Your task to perform on an android device: Clear the shopping cart on newegg. Search for "logitech g pro" on newegg, select the first entry, and add it to the cart. Image 0: 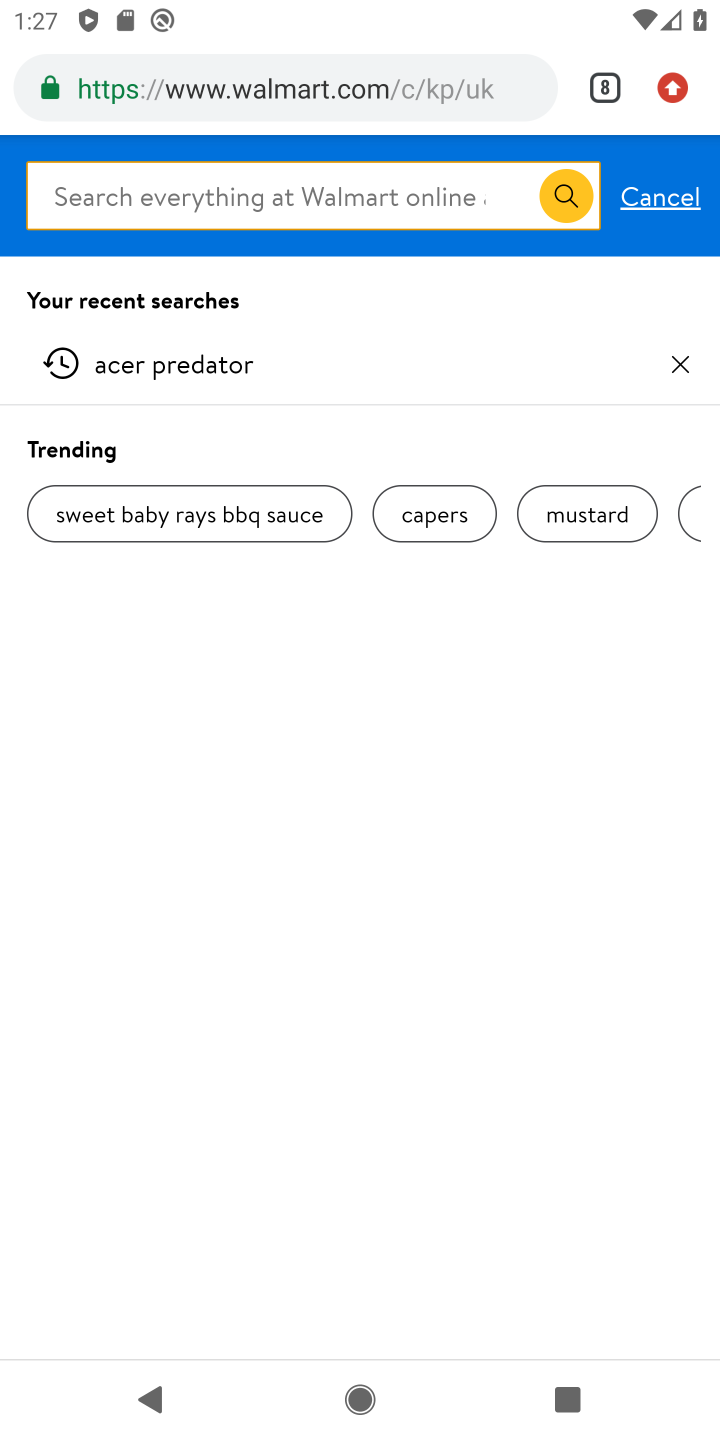
Step 0: press home button
Your task to perform on an android device: Clear the shopping cart on newegg. Search for "logitech g pro" on newegg, select the first entry, and add it to the cart. Image 1: 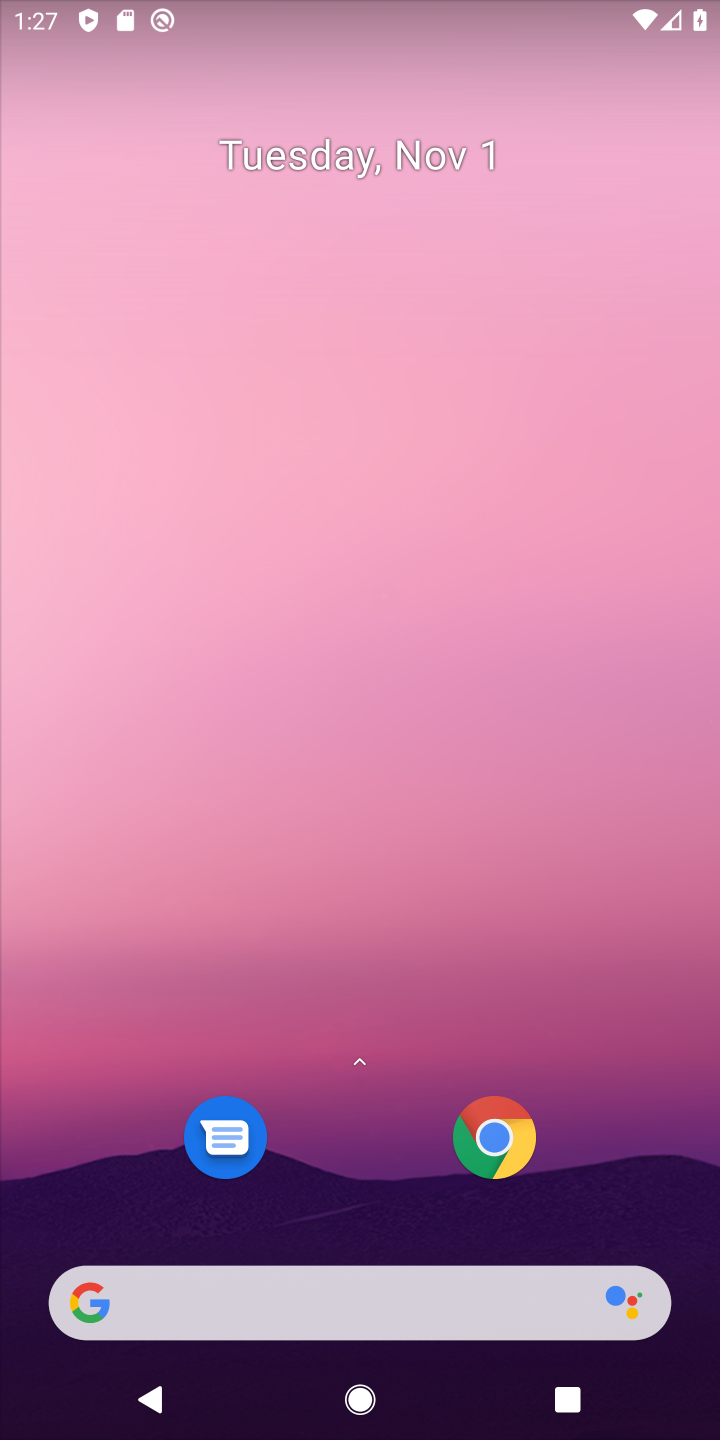
Step 1: click (340, 1281)
Your task to perform on an android device: Clear the shopping cart on newegg. Search for "logitech g pro" on newegg, select the first entry, and add it to the cart. Image 2: 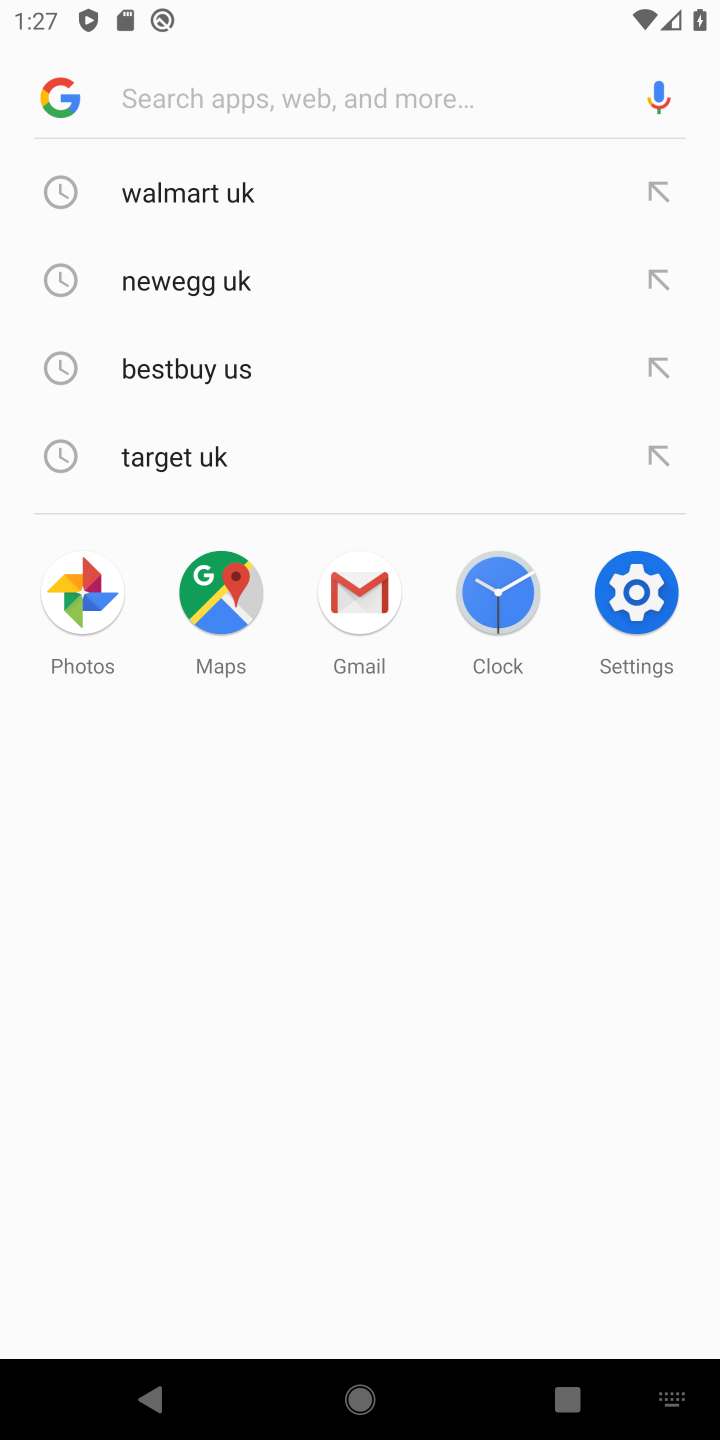
Step 2: type "newegg"
Your task to perform on an android device: Clear the shopping cart on newegg. Search for "logitech g pro" on newegg, select the first entry, and add it to the cart. Image 3: 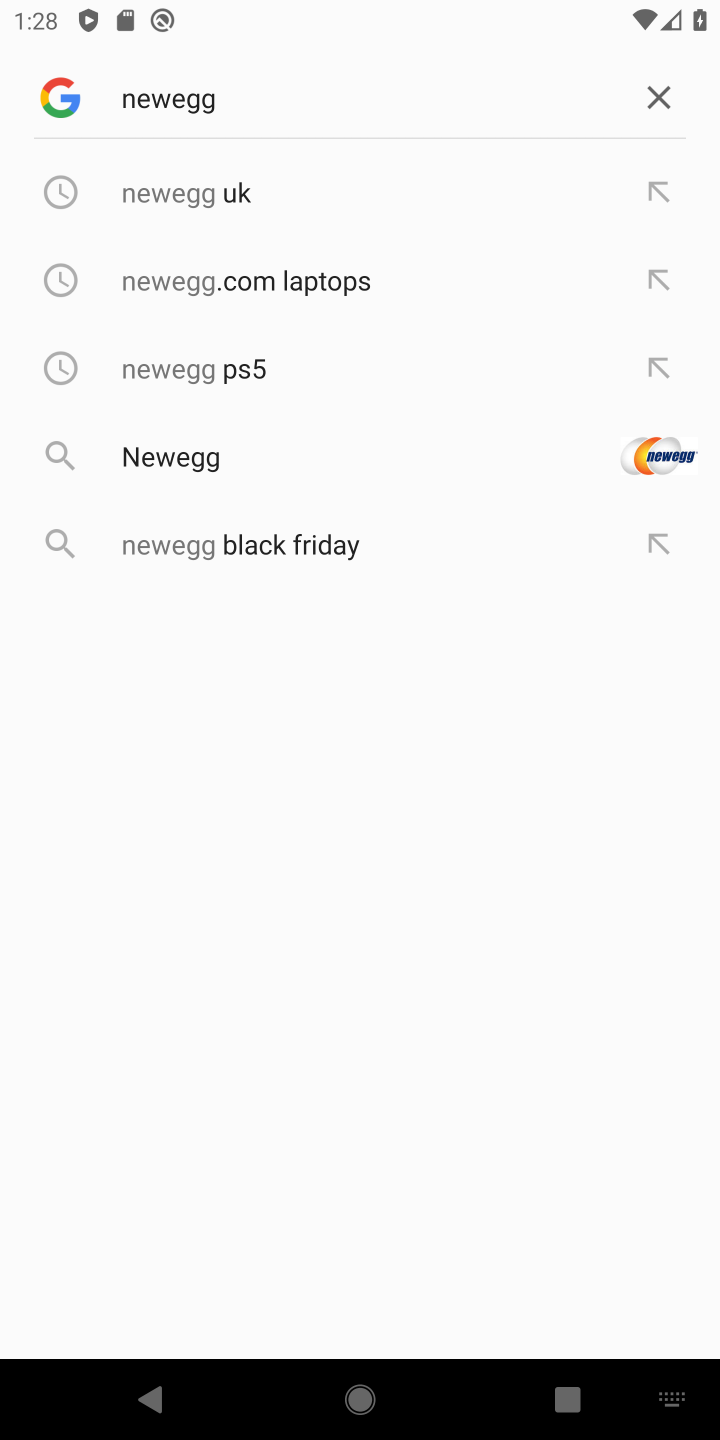
Step 3: click (165, 172)
Your task to perform on an android device: Clear the shopping cart on newegg. Search for "logitech g pro" on newegg, select the first entry, and add it to the cart. Image 4: 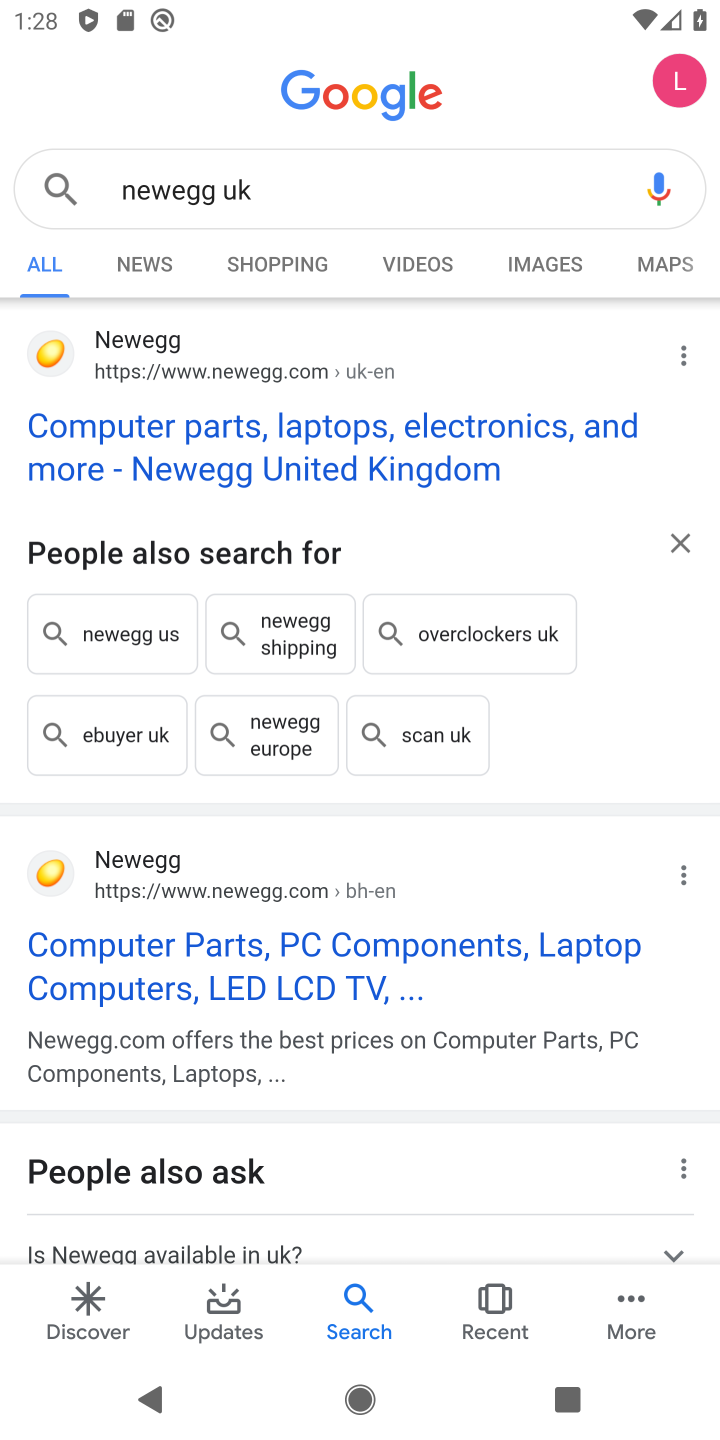
Step 4: click (341, 424)
Your task to perform on an android device: Clear the shopping cart on newegg. Search for "logitech g pro" on newegg, select the first entry, and add it to the cart. Image 5: 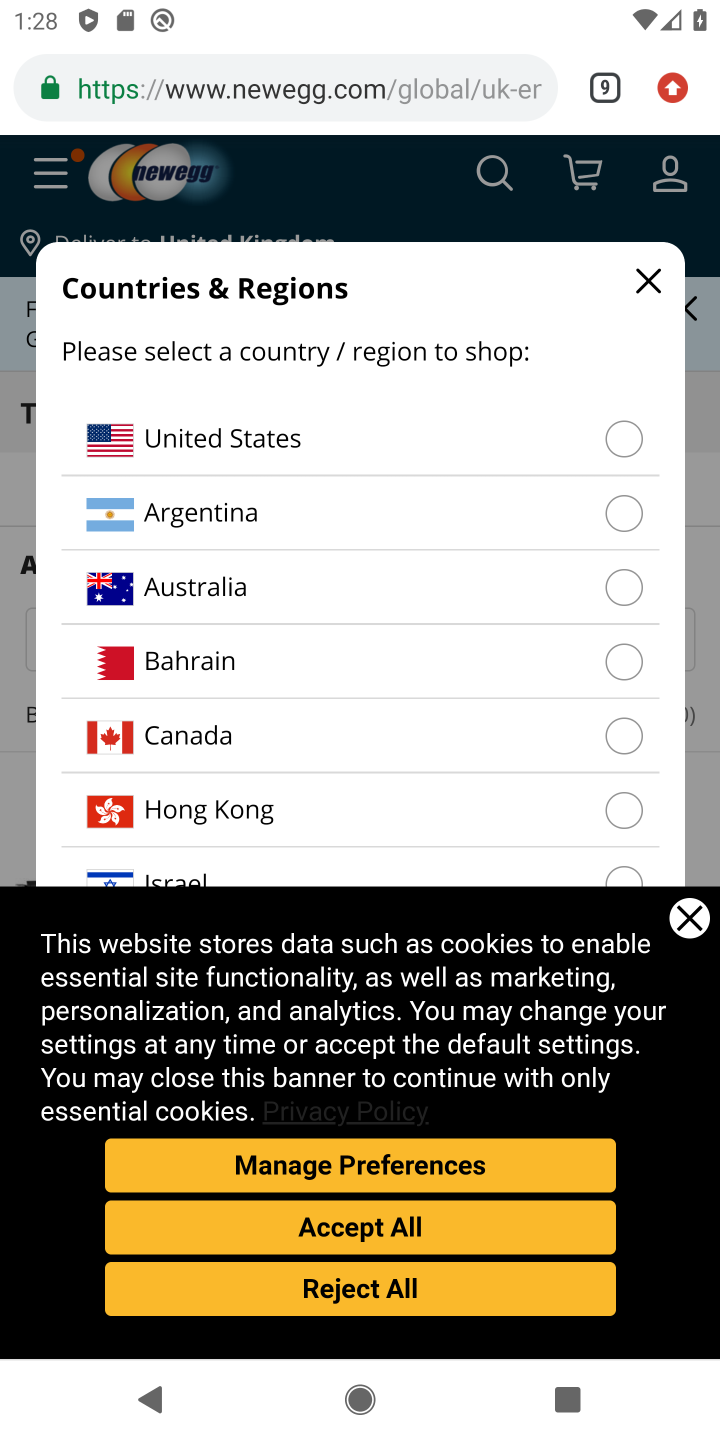
Step 5: click (310, 422)
Your task to perform on an android device: Clear the shopping cart on newegg. Search for "logitech g pro" on newegg, select the first entry, and add it to the cart. Image 6: 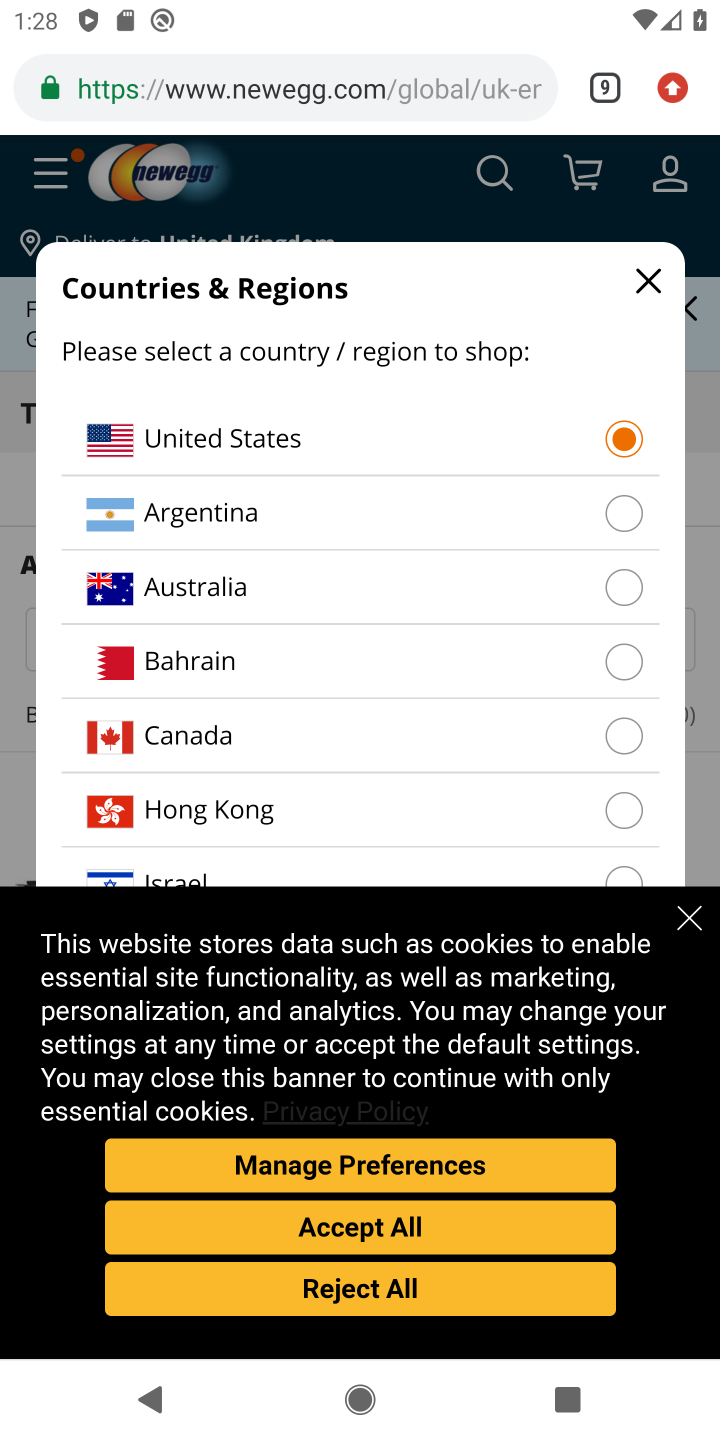
Step 6: click (697, 925)
Your task to perform on an android device: Clear the shopping cart on newegg. Search for "logitech g pro" on newegg, select the first entry, and add it to the cart. Image 7: 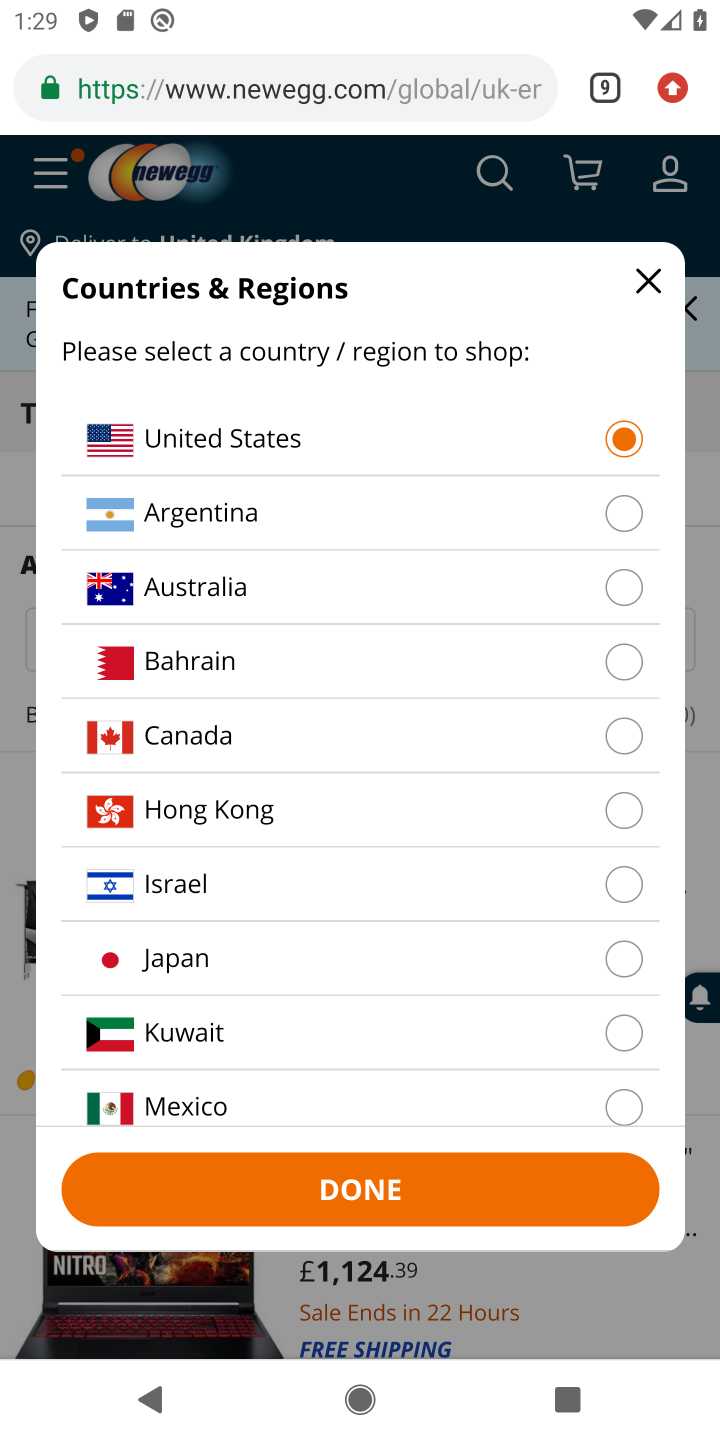
Step 7: click (452, 1177)
Your task to perform on an android device: Clear the shopping cart on newegg. Search for "logitech g pro" on newegg, select the first entry, and add it to the cart. Image 8: 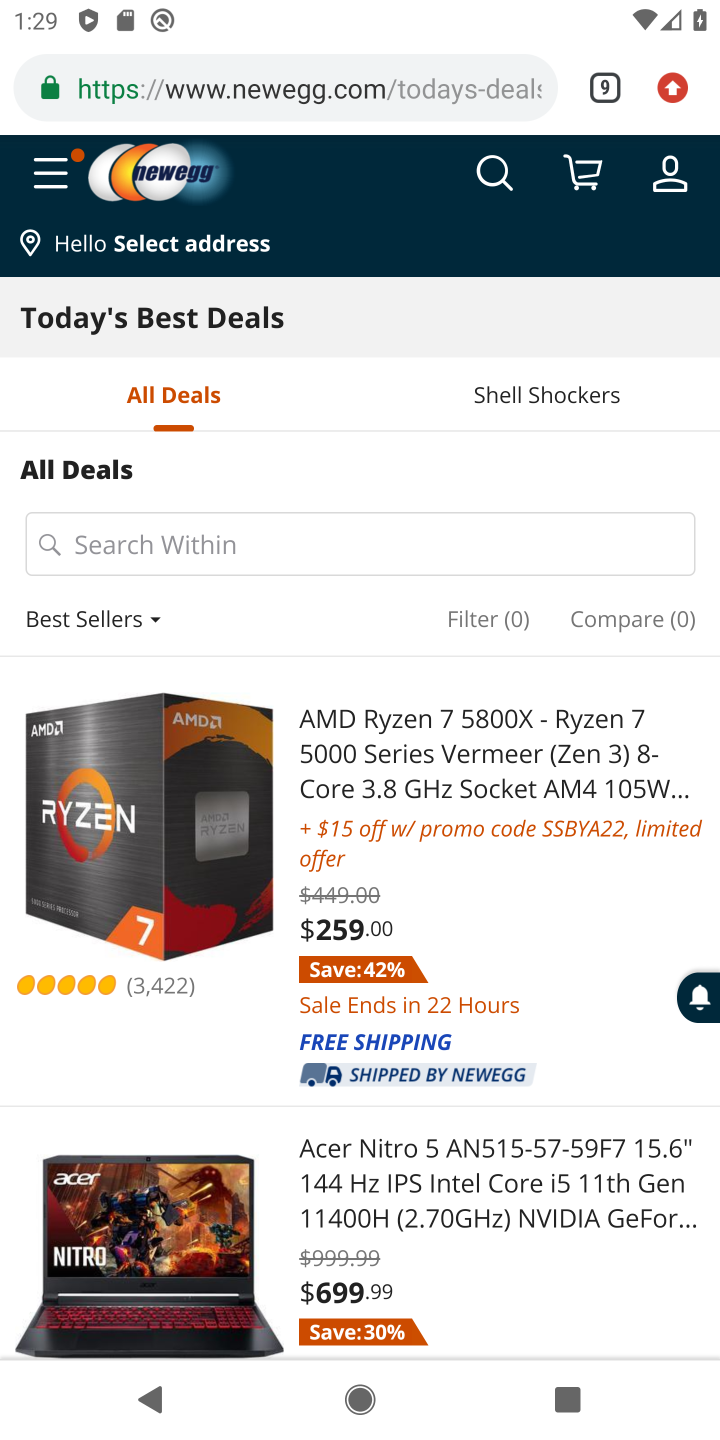
Step 8: click (372, 557)
Your task to perform on an android device: Clear the shopping cart on newegg. Search for "logitech g pro" on newegg, select the first entry, and add it to the cart. Image 9: 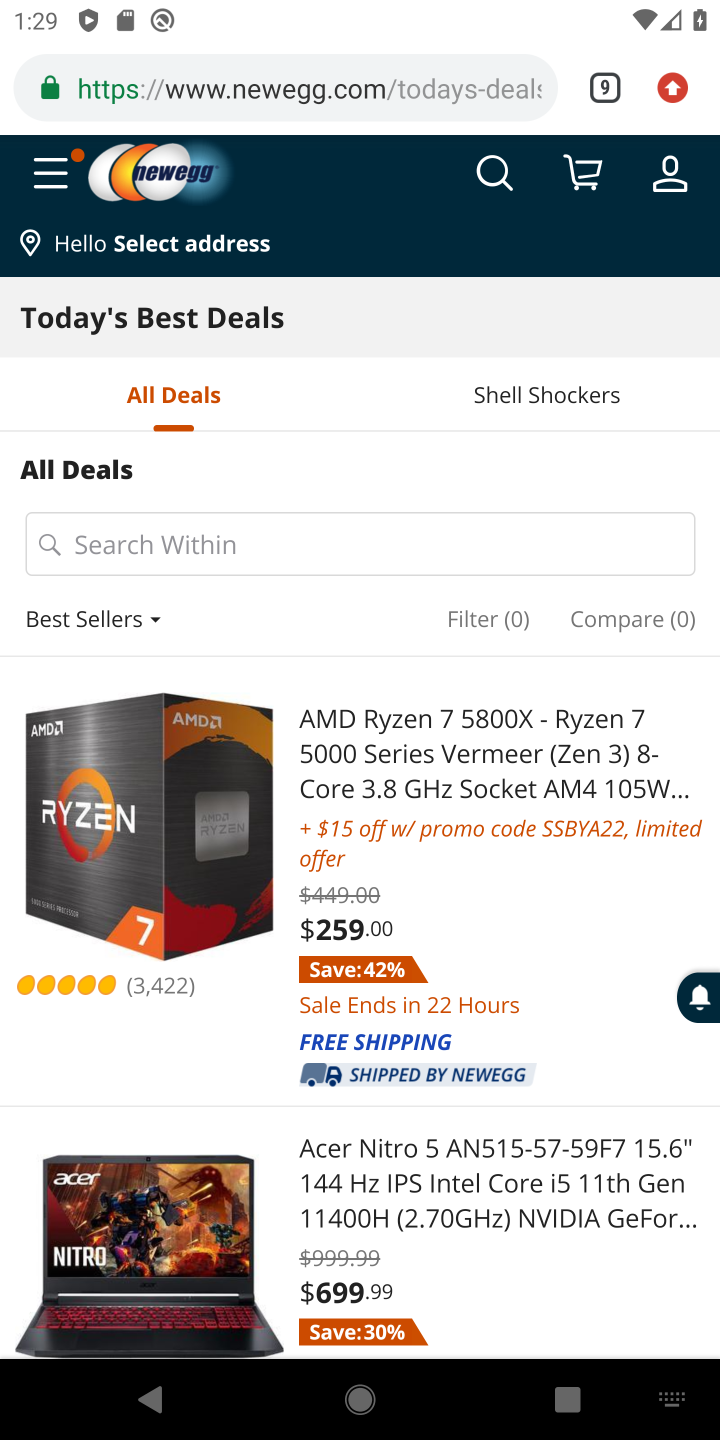
Step 9: type "logitech"
Your task to perform on an android device: Clear the shopping cart on newegg. Search for "logitech g pro" on newegg, select the first entry, and add it to the cart. Image 10: 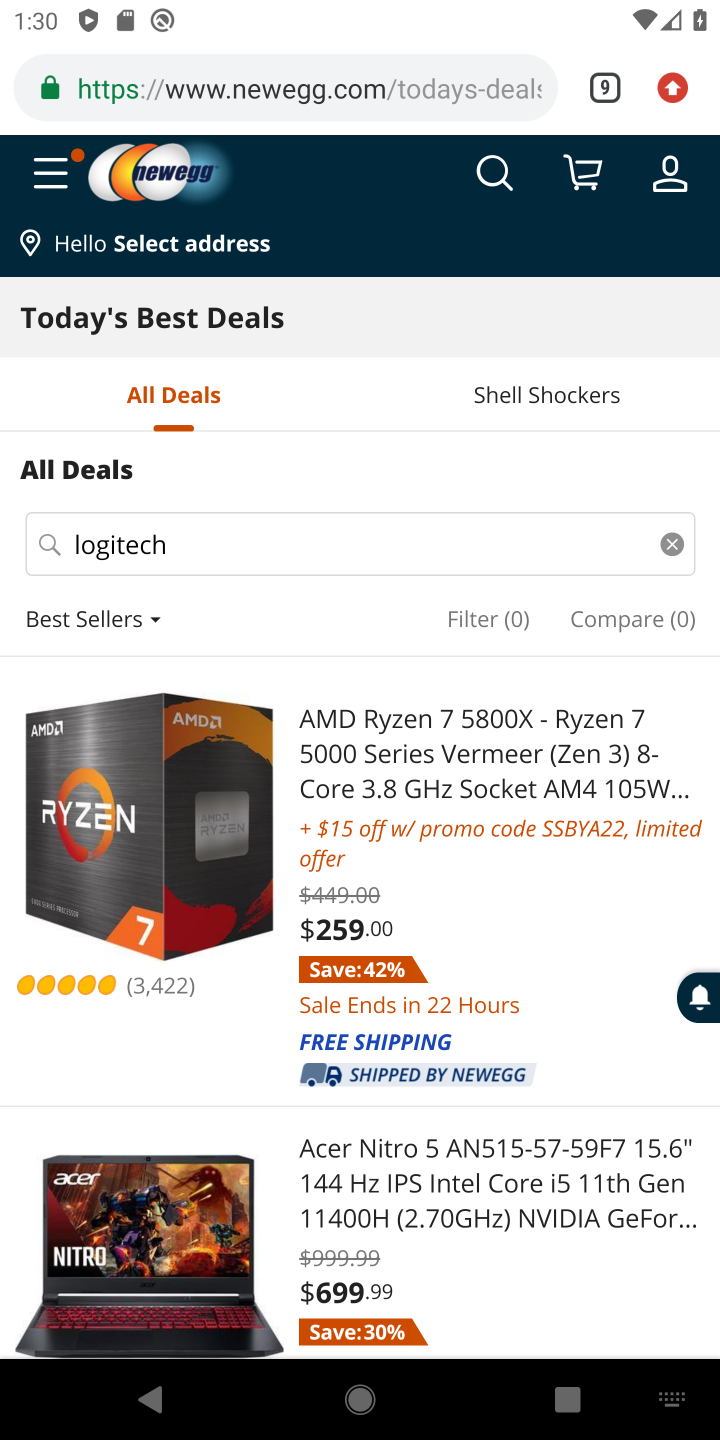
Step 10: click (609, 537)
Your task to perform on an android device: Clear the shopping cart on newegg. Search for "logitech g pro" on newegg, select the first entry, and add it to the cart. Image 11: 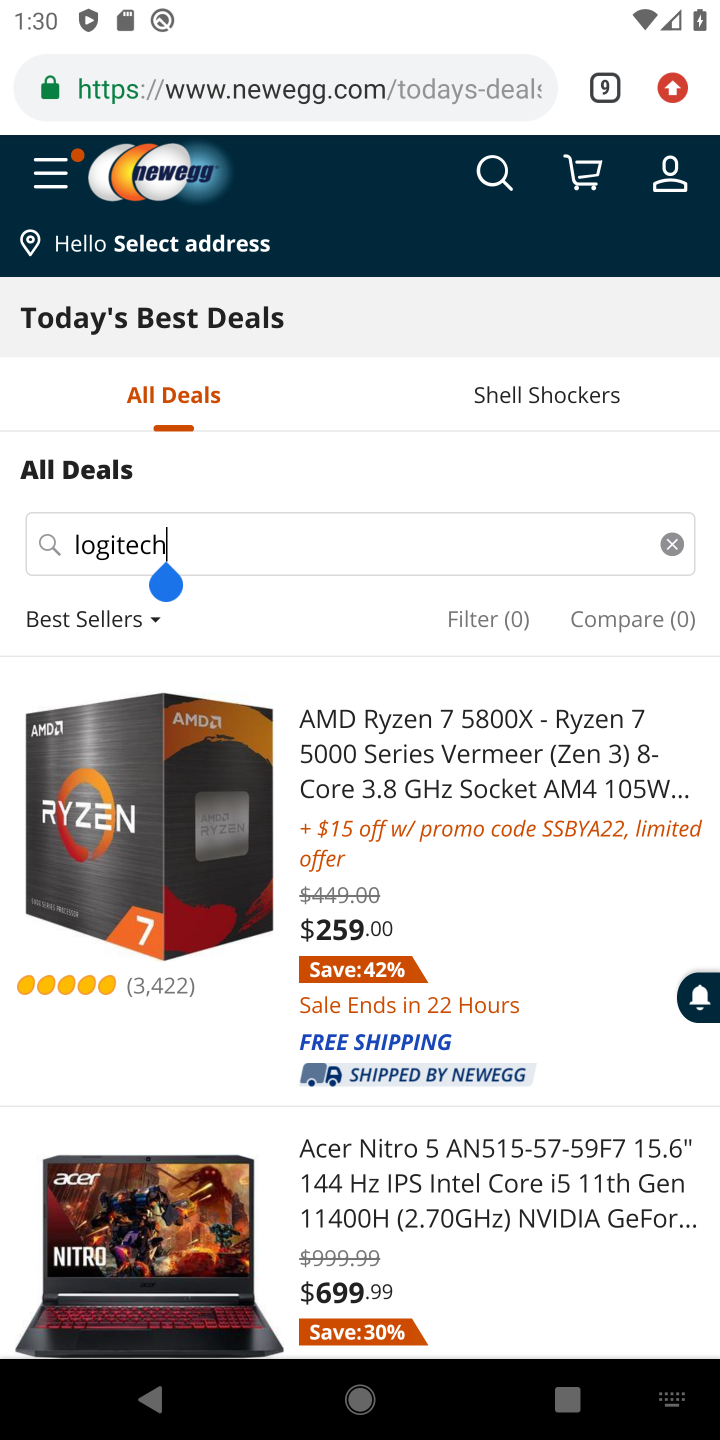
Step 11: task complete